Your task to perform on an android device: turn off smart reply in the gmail app Image 0: 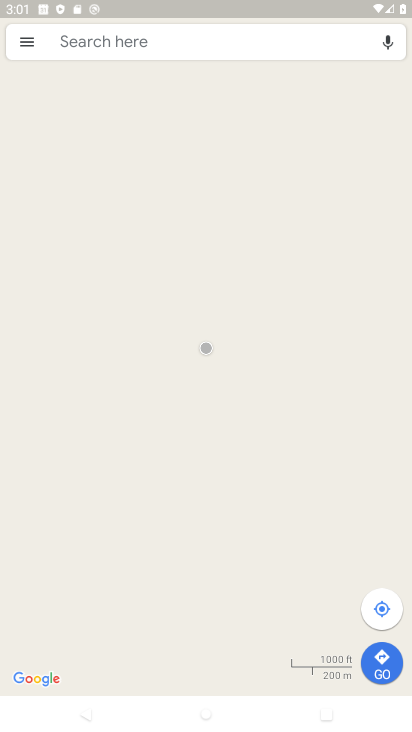
Step 0: press home button
Your task to perform on an android device: turn off smart reply in the gmail app Image 1: 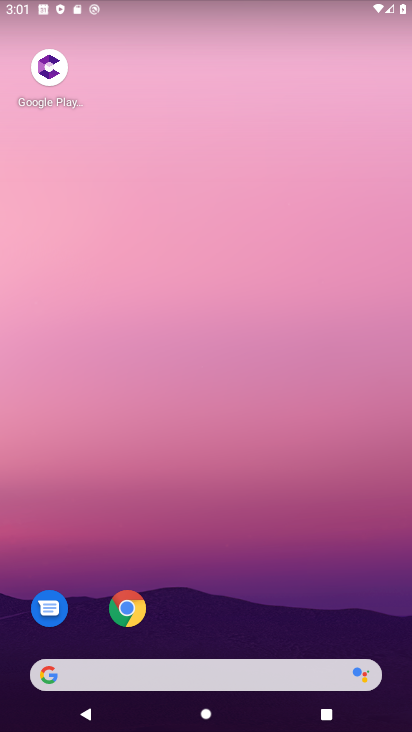
Step 1: drag from (281, 624) to (270, 8)
Your task to perform on an android device: turn off smart reply in the gmail app Image 2: 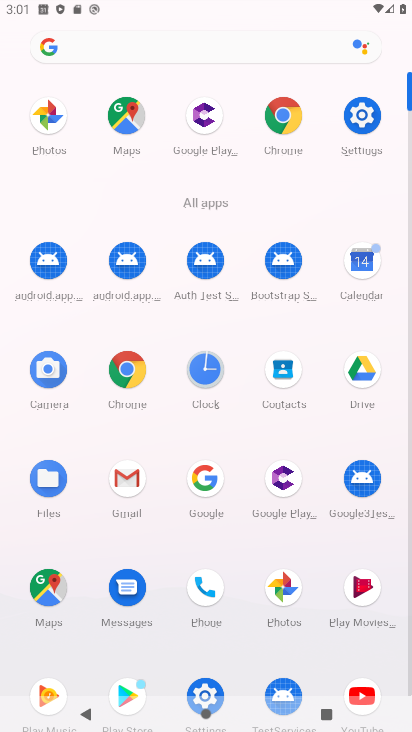
Step 2: click (129, 484)
Your task to perform on an android device: turn off smart reply in the gmail app Image 3: 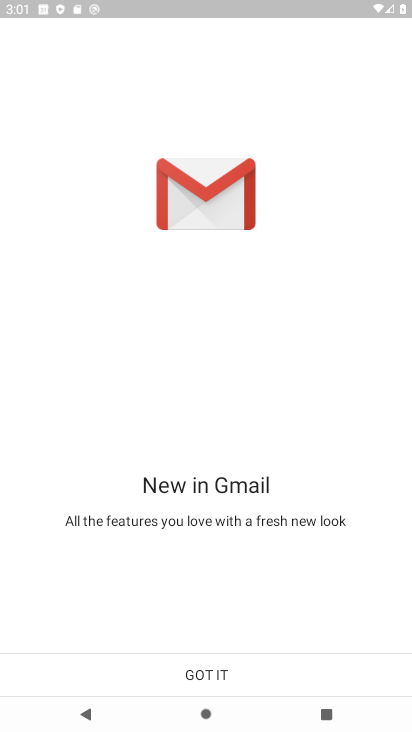
Step 3: click (193, 668)
Your task to perform on an android device: turn off smart reply in the gmail app Image 4: 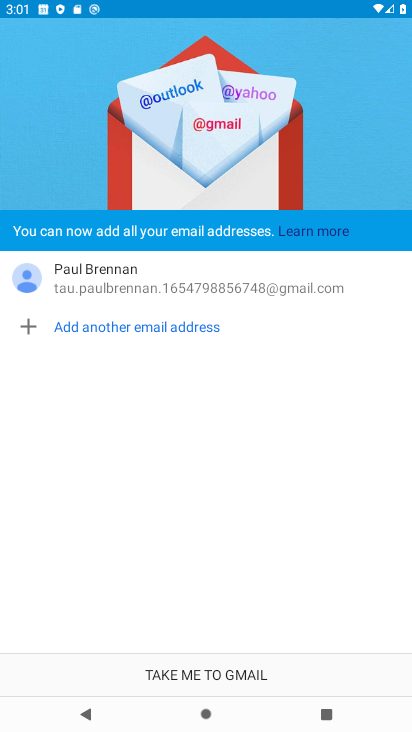
Step 4: click (193, 668)
Your task to perform on an android device: turn off smart reply in the gmail app Image 5: 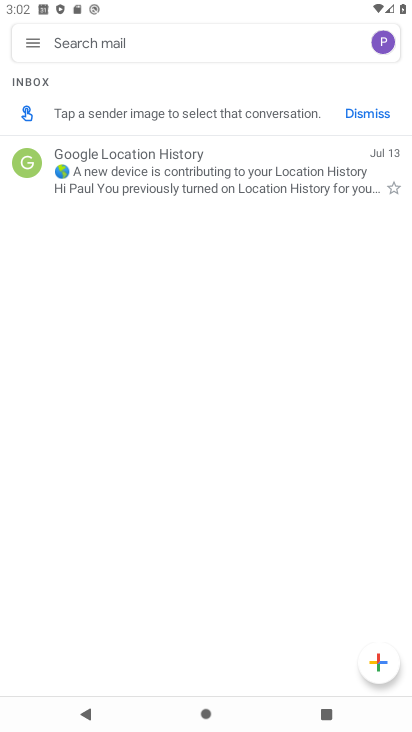
Step 5: click (33, 45)
Your task to perform on an android device: turn off smart reply in the gmail app Image 6: 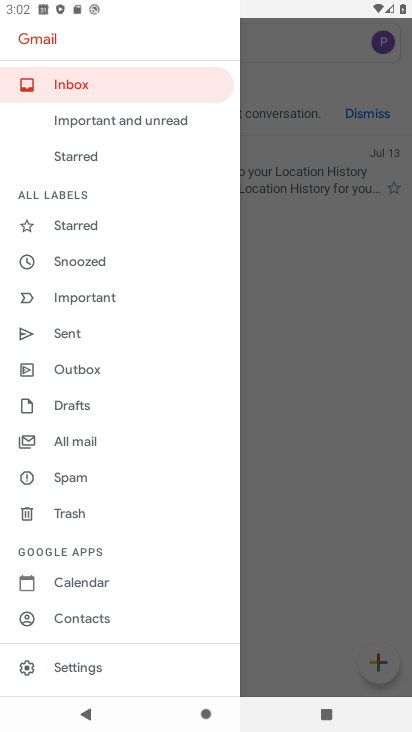
Step 6: click (105, 661)
Your task to perform on an android device: turn off smart reply in the gmail app Image 7: 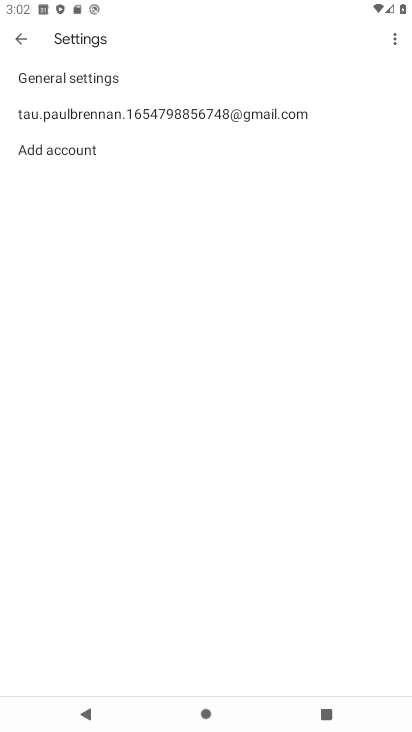
Step 7: click (141, 106)
Your task to perform on an android device: turn off smart reply in the gmail app Image 8: 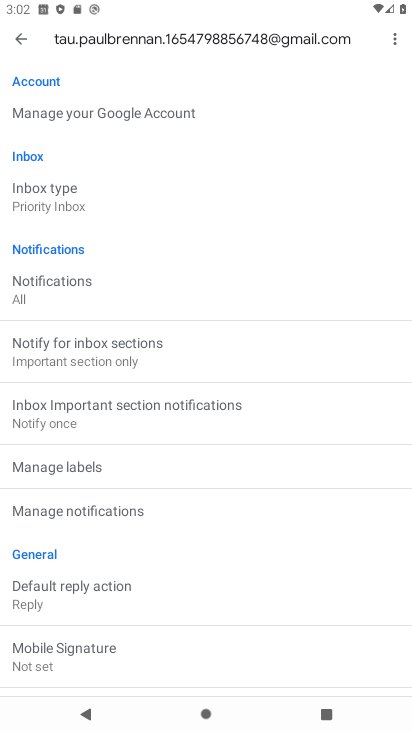
Step 8: drag from (167, 608) to (130, 204)
Your task to perform on an android device: turn off smart reply in the gmail app Image 9: 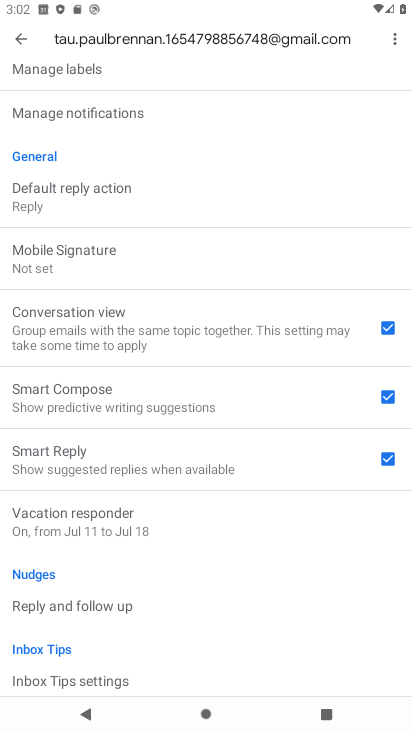
Step 9: click (394, 444)
Your task to perform on an android device: turn off smart reply in the gmail app Image 10: 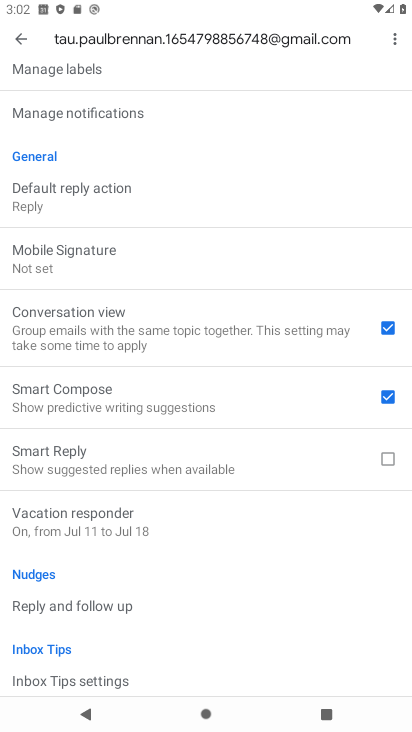
Step 10: task complete